Your task to perform on an android device: Open Youtube and go to "Your channel" Image 0: 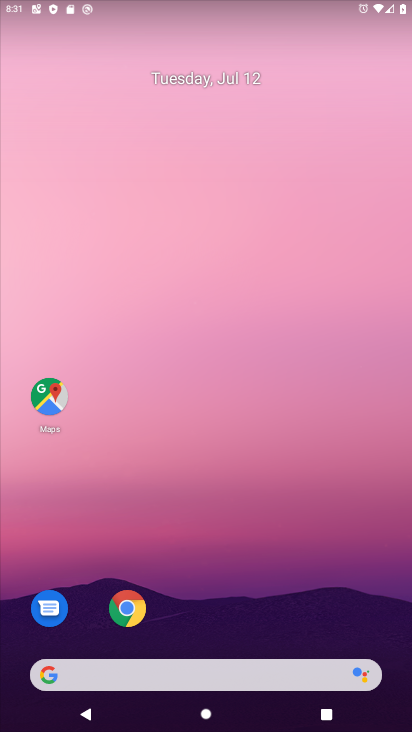
Step 0: drag from (240, 587) to (369, 24)
Your task to perform on an android device: Open Youtube and go to "Your channel" Image 1: 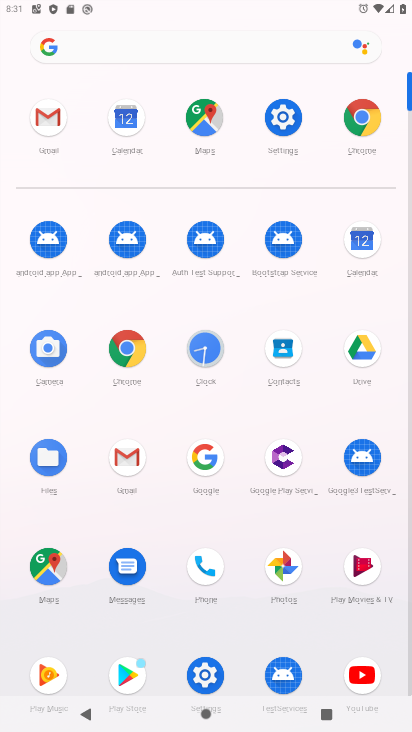
Step 1: click (361, 683)
Your task to perform on an android device: Open Youtube and go to "Your channel" Image 2: 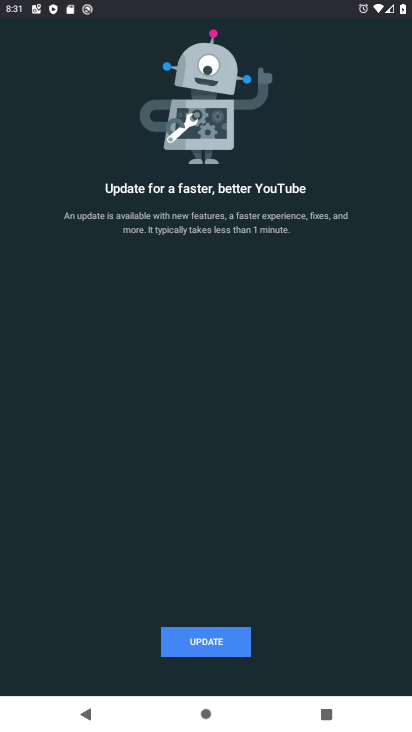
Step 2: click (203, 639)
Your task to perform on an android device: Open Youtube and go to "Your channel" Image 3: 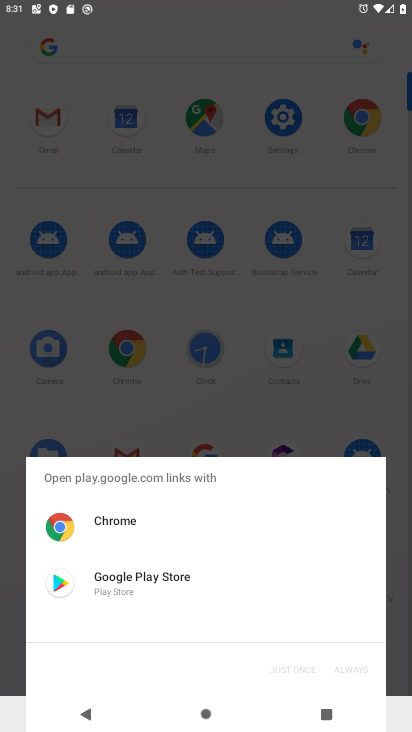
Step 3: click (175, 579)
Your task to perform on an android device: Open Youtube and go to "Your channel" Image 4: 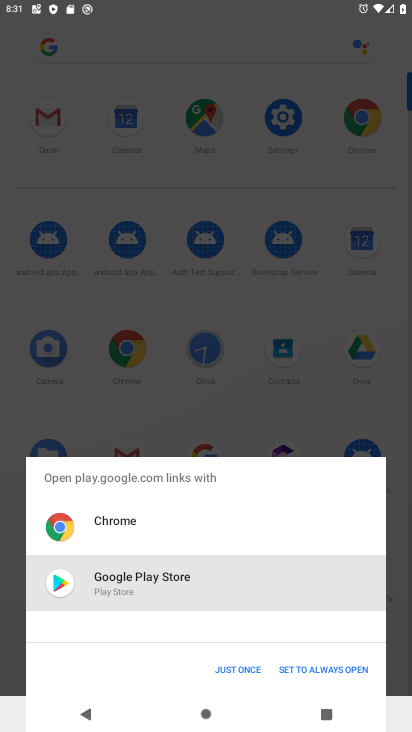
Step 4: click (225, 663)
Your task to perform on an android device: Open Youtube and go to "Your channel" Image 5: 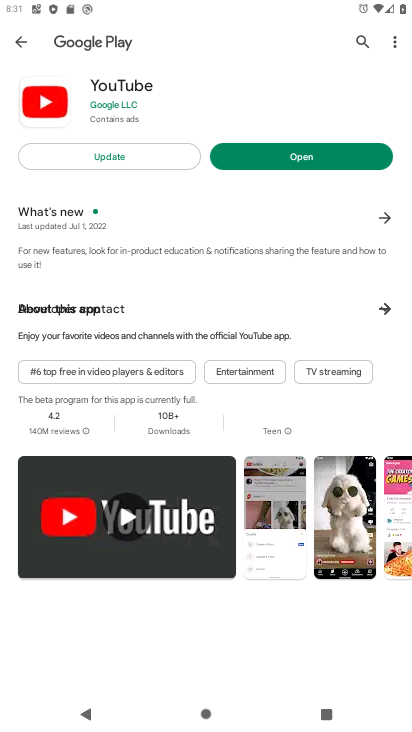
Step 5: click (123, 148)
Your task to perform on an android device: Open Youtube and go to "Your channel" Image 6: 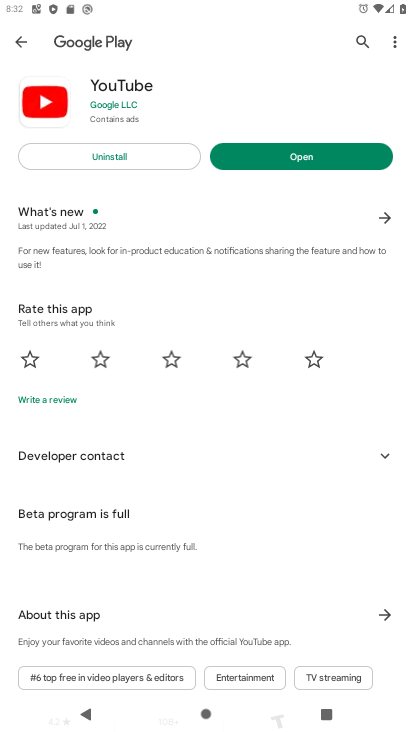
Step 6: click (273, 154)
Your task to perform on an android device: Open Youtube and go to "Your channel" Image 7: 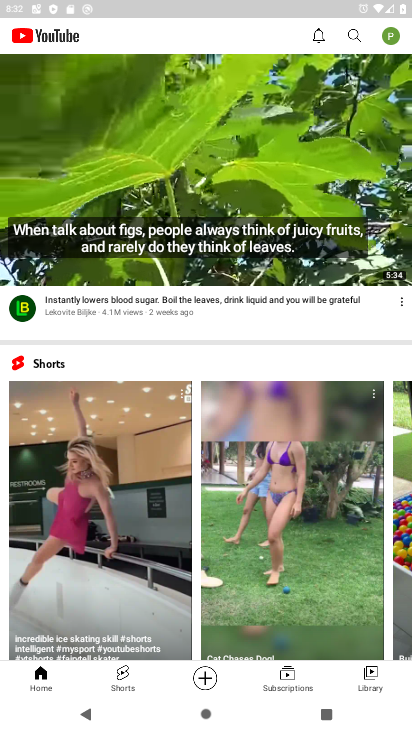
Step 7: click (389, 38)
Your task to perform on an android device: Open Youtube and go to "Your channel" Image 8: 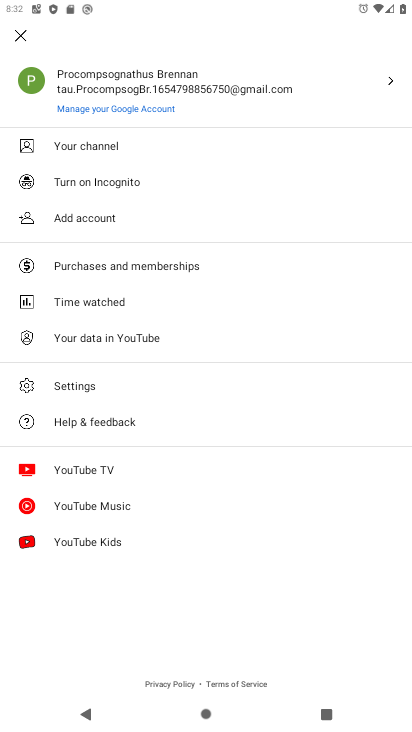
Step 8: click (163, 151)
Your task to perform on an android device: Open Youtube and go to "Your channel" Image 9: 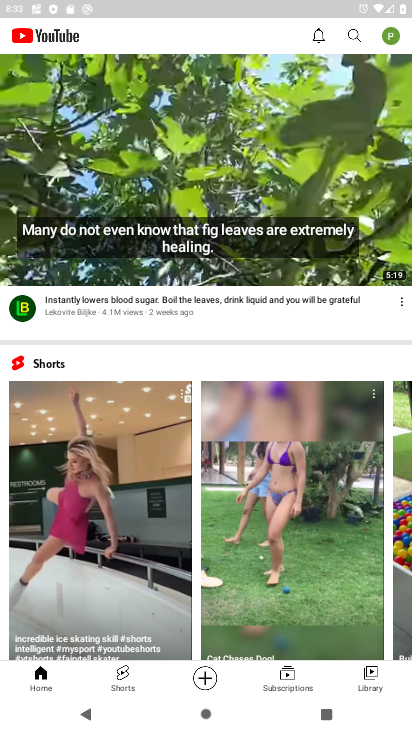
Step 9: task complete